Your task to perform on an android device: install app "Google Find My Device" Image 0: 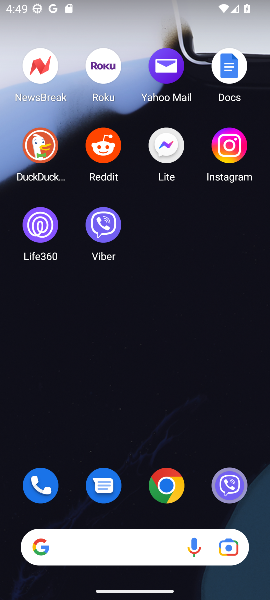
Step 0: drag from (168, 361) to (167, 103)
Your task to perform on an android device: install app "Google Find My Device" Image 1: 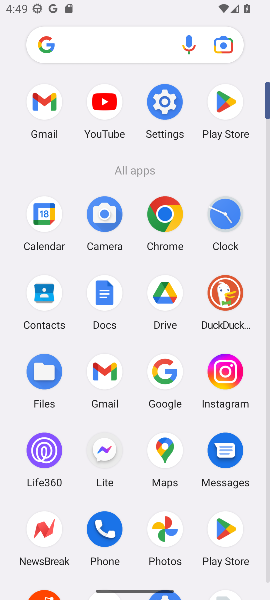
Step 1: click (237, 95)
Your task to perform on an android device: install app "Google Find My Device" Image 2: 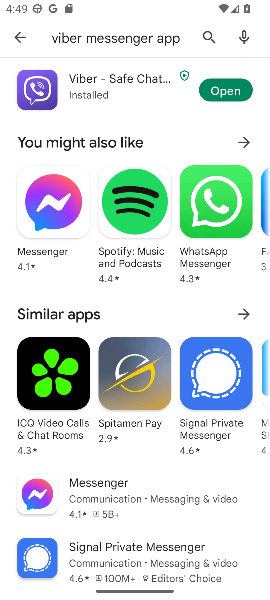
Step 2: click (208, 27)
Your task to perform on an android device: install app "Google Find My Device" Image 3: 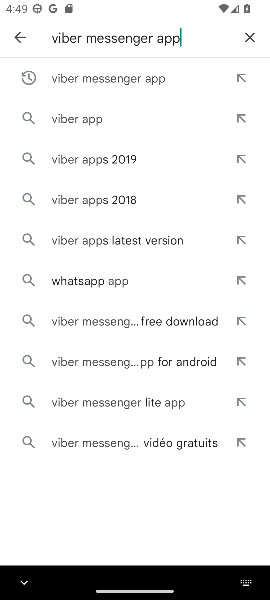
Step 3: click (250, 41)
Your task to perform on an android device: install app "Google Find My Device" Image 4: 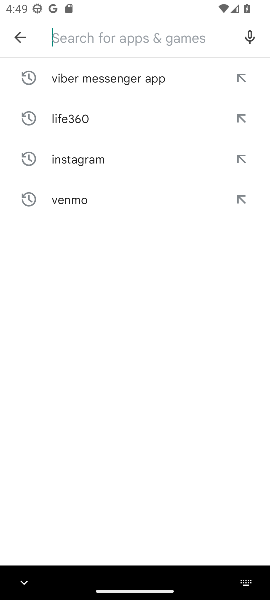
Step 4: click (99, 42)
Your task to perform on an android device: install app "Google Find My Device" Image 5: 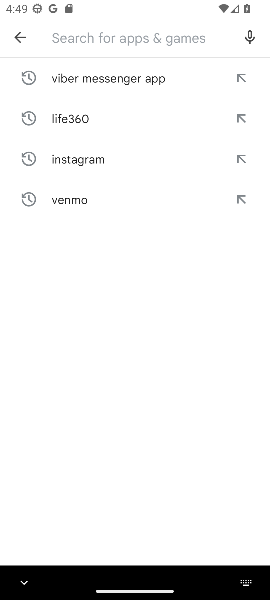
Step 5: click (110, 42)
Your task to perform on an android device: install app "Google Find My Device" Image 6: 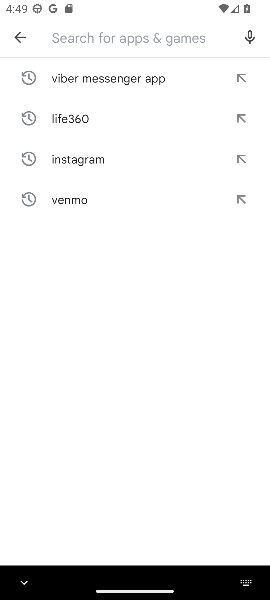
Step 6: type "Google Find My Device"
Your task to perform on an android device: install app "Google Find My Device" Image 7: 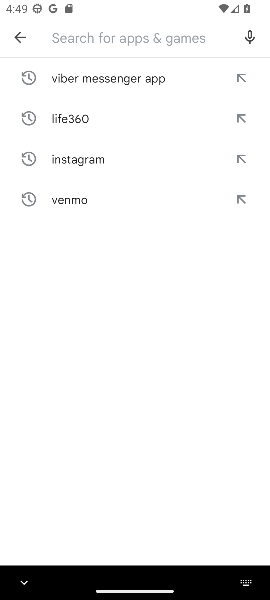
Step 7: click (104, 355)
Your task to perform on an android device: install app "Google Find My Device" Image 8: 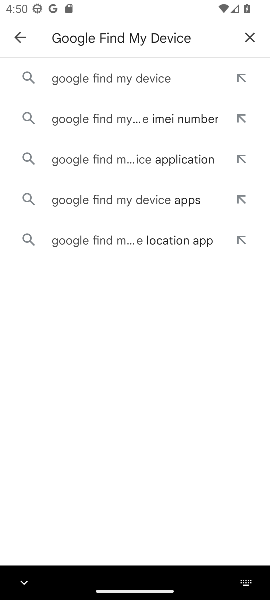
Step 8: click (111, 75)
Your task to perform on an android device: install app "Google Find My Device" Image 9: 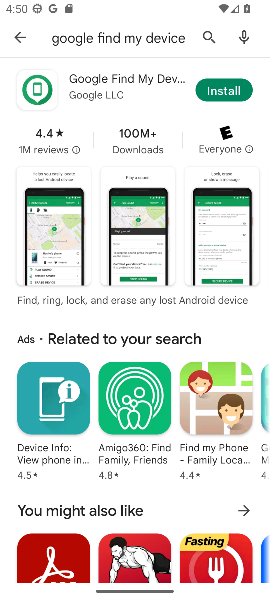
Step 9: click (229, 91)
Your task to perform on an android device: install app "Google Find My Device" Image 10: 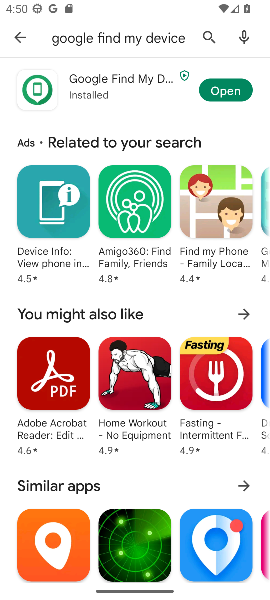
Step 10: click (229, 97)
Your task to perform on an android device: install app "Google Find My Device" Image 11: 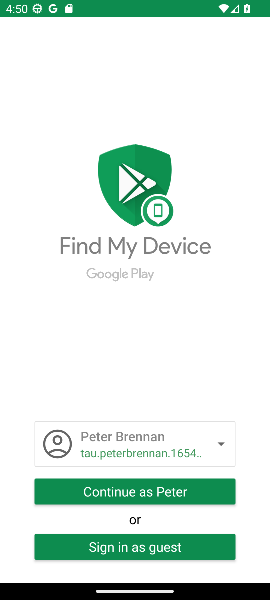
Step 11: task complete